Your task to perform on an android device: Go to ESPN.com Image 0: 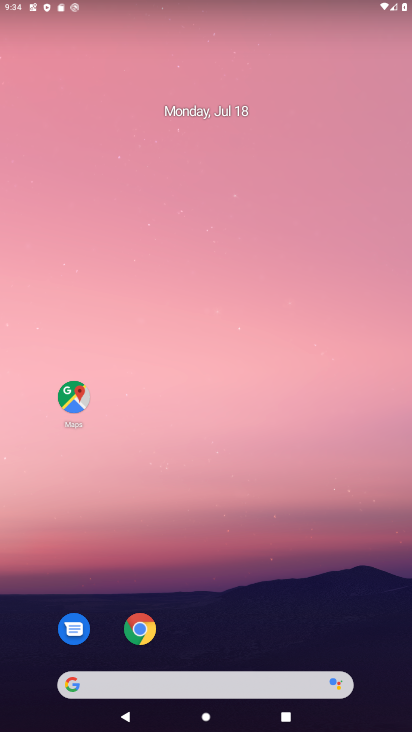
Step 0: drag from (355, 573) to (242, 121)
Your task to perform on an android device: Go to ESPN.com Image 1: 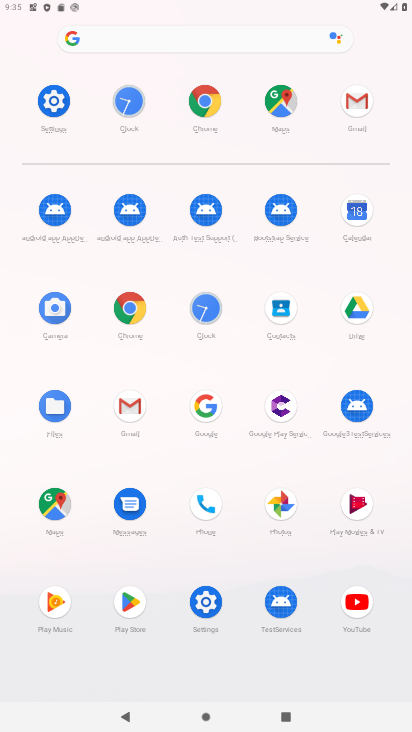
Step 1: click (128, 306)
Your task to perform on an android device: Go to ESPN.com Image 2: 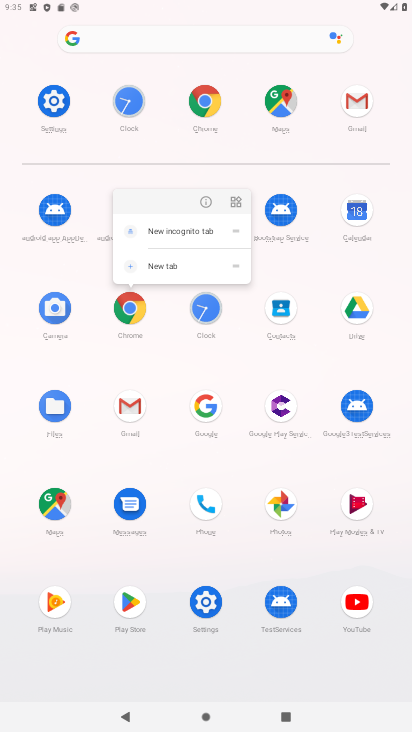
Step 2: click (128, 306)
Your task to perform on an android device: Go to ESPN.com Image 3: 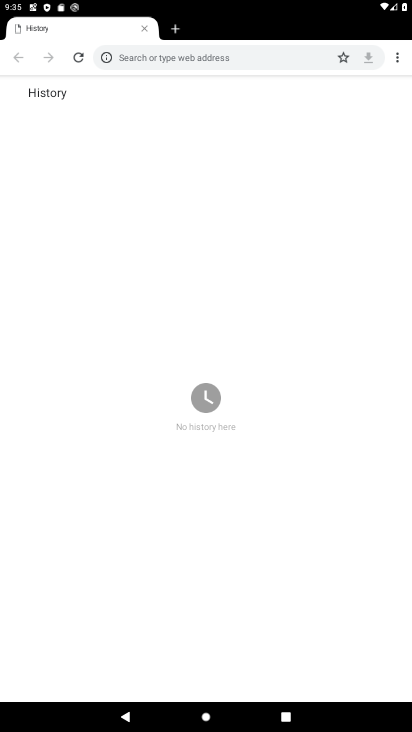
Step 3: click (251, 62)
Your task to perform on an android device: Go to ESPN.com Image 4: 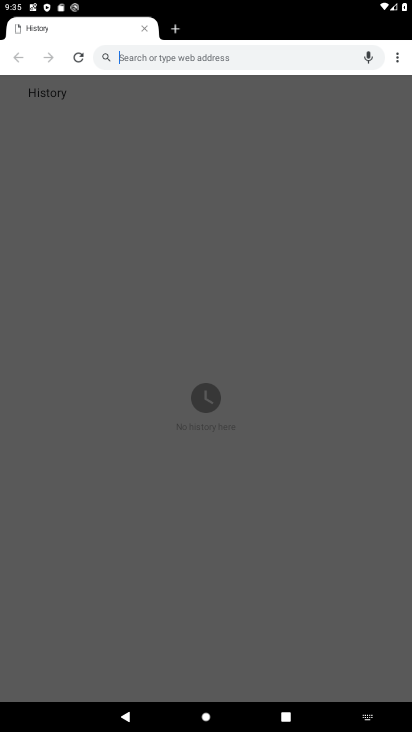
Step 4: type "espn.com"
Your task to perform on an android device: Go to ESPN.com Image 5: 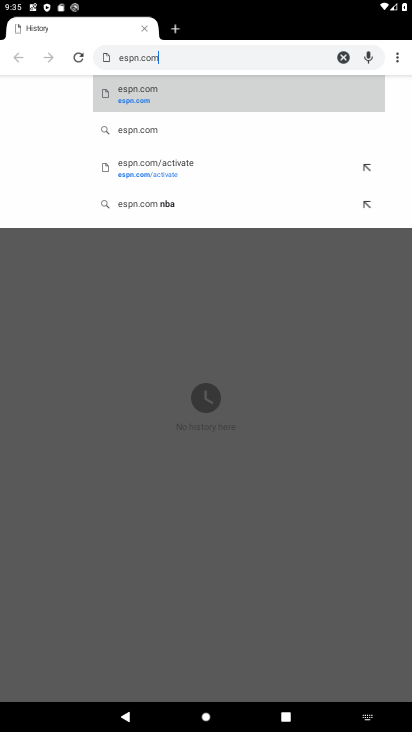
Step 5: click (129, 91)
Your task to perform on an android device: Go to ESPN.com Image 6: 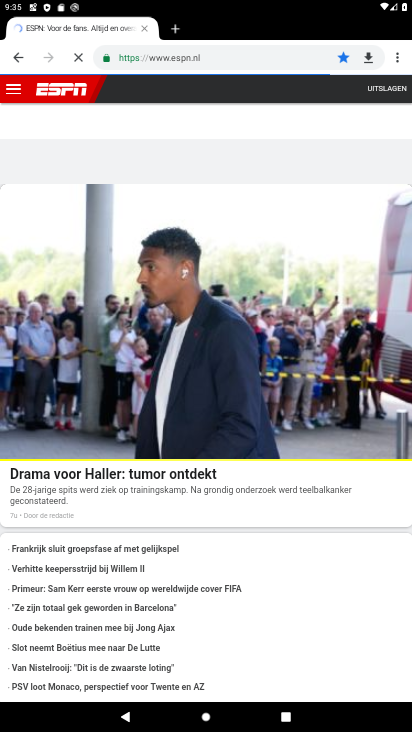
Step 6: task complete